Your task to perform on an android device: Open Chrome and go to settings Image 0: 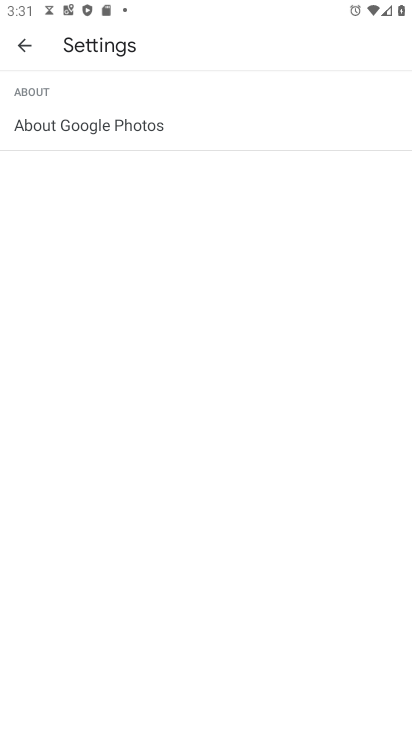
Step 0: press home button
Your task to perform on an android device: Open Chrome and go to settings Image 1: 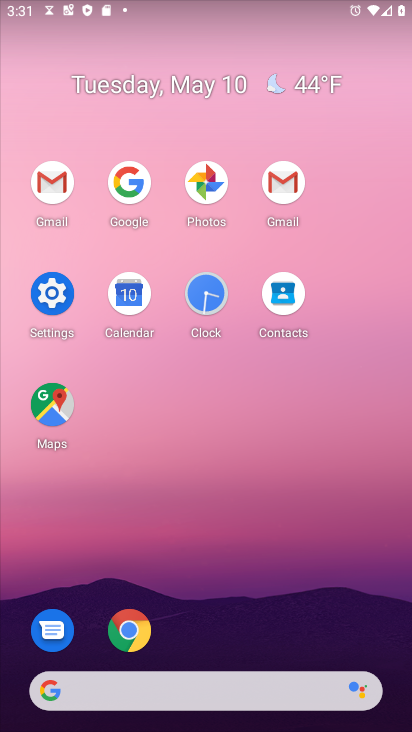
Step 1: click (125, 633)
Your task to perform on an android device: Open Chrome and go to settings Image 2: 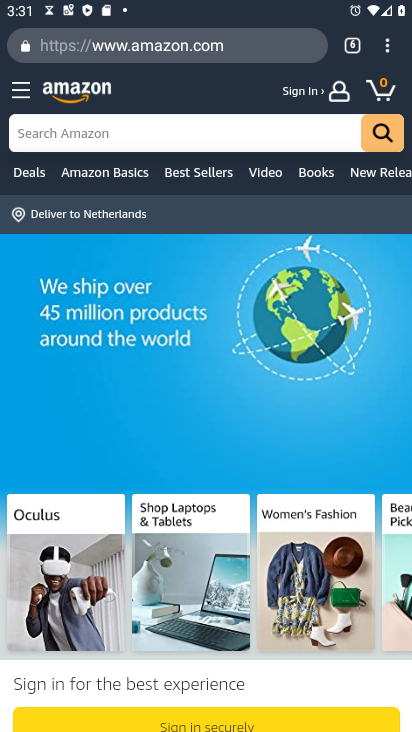
Step 2: click (390, 48)
Your task to perform on an android device: Open Chrome and go to settings Image 3: 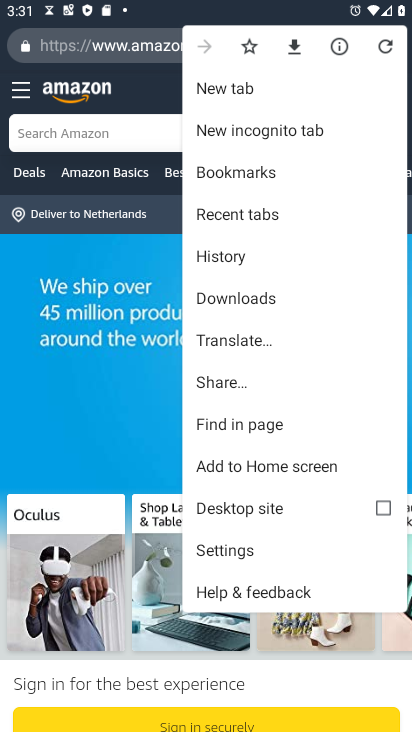
Step 3: click (229, 551)
Your task to perform on an android device: Open Chrome and go to settings Image 4: 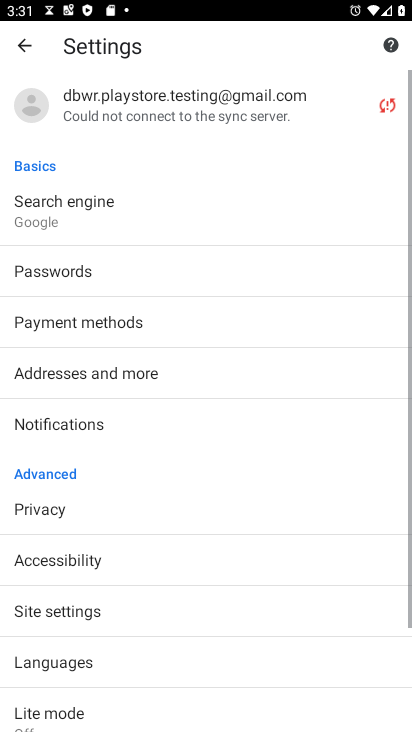
Step 4: task complete